Your task to perform on an android device: Go to Wikipedia Image 0: 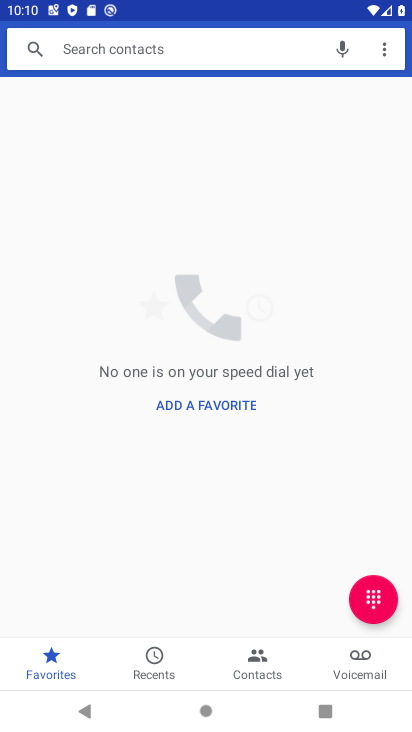
Step 0: press home button
Your task to perform on an android device: Go to Wikipedia Image 1: 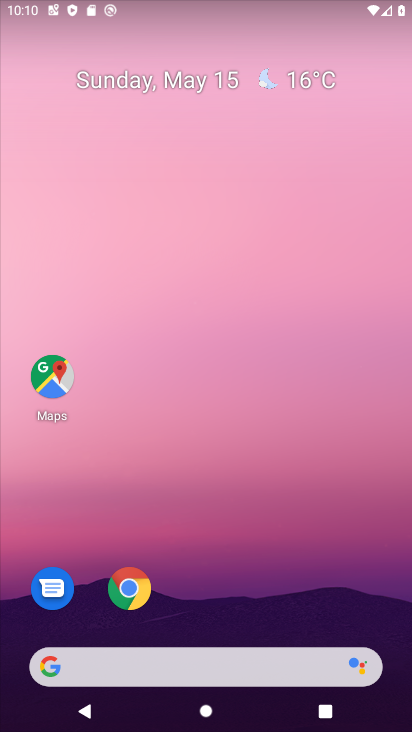
Step 1: click (153, 663)
Your task to perform on an android device: Go to Wikipedia Image 2: 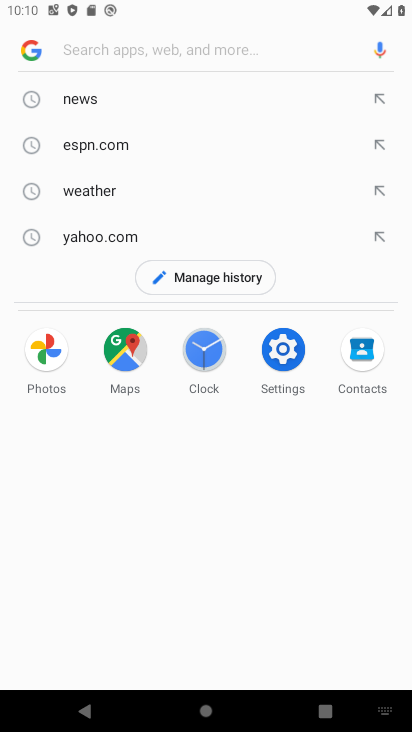
Step 2: type "wikipedia"
Your task to perform on an android device: Go to Wikipedia Image 3: 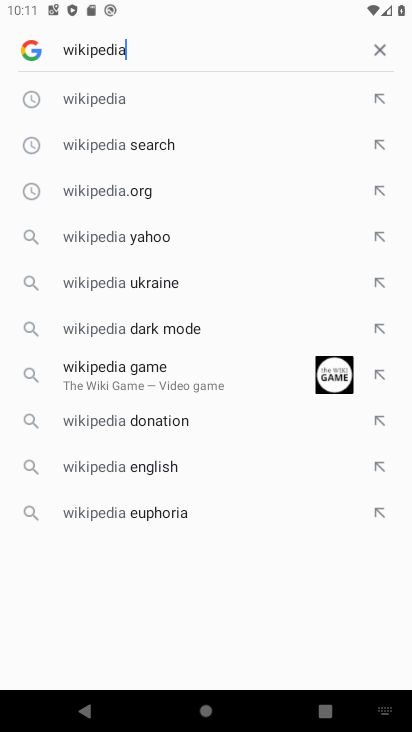
Step 3: click (125, 103)
Your task to perform on an android device: Go to Wikipedia Image 4: 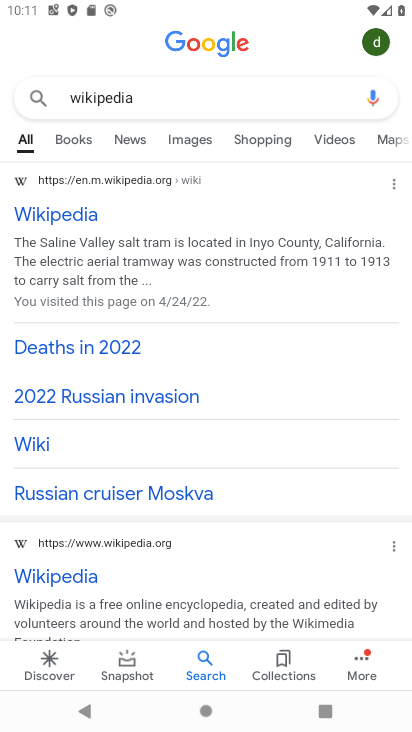
Step 4: click (62, 218)
Your task to perform on an android device: Go to Wikipedia Image 5: 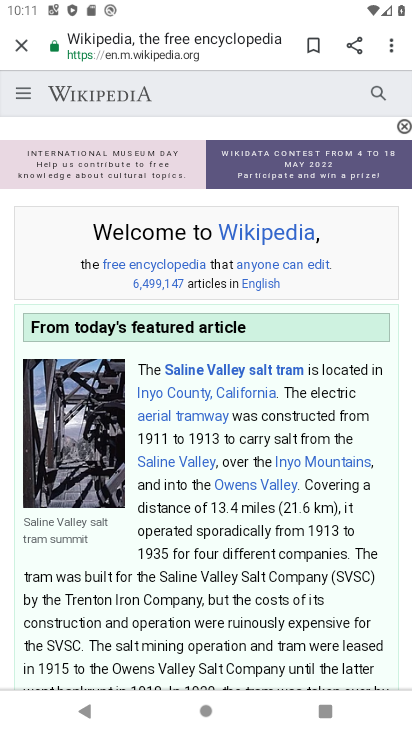
Step 5: task complete